Your task to perform on an android device: See recent photos Image 0: 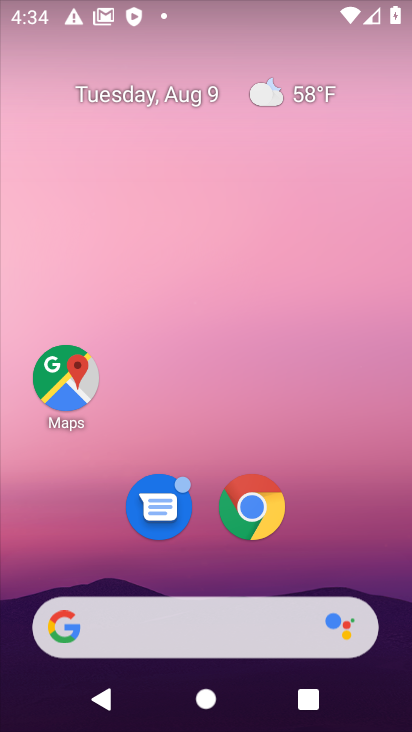
Step 0: drag from (327, 536) to (318, 55)
Your task to perform on an android device: See recent photos Image 1: 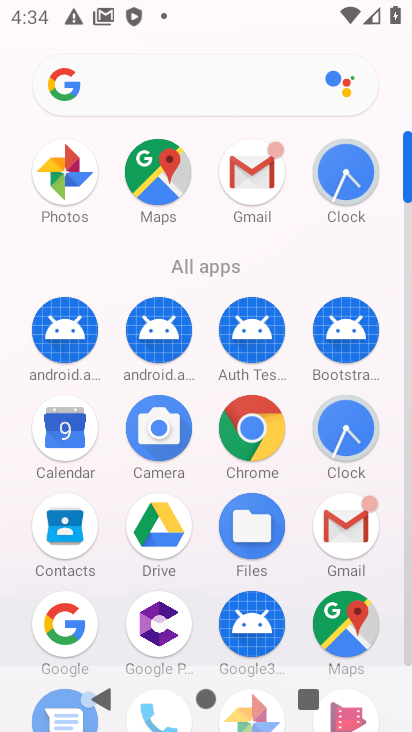
Step 1: click (72, 175)
Your task to perform on an android device: See recent photos Image 2: 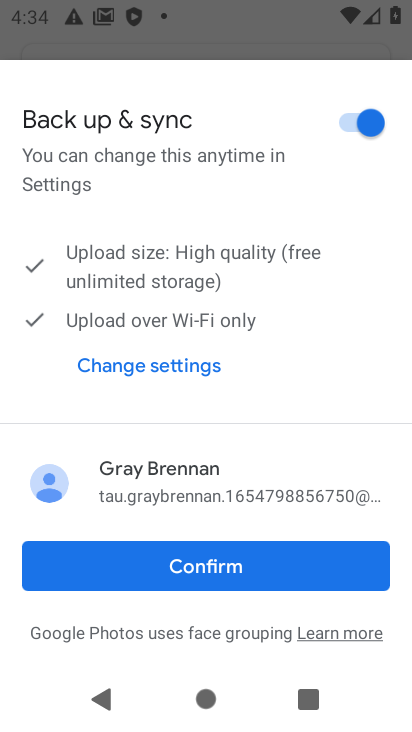
Step 2: click (196, 560)
Your task to perform on an android device: See recent photos Image 3: 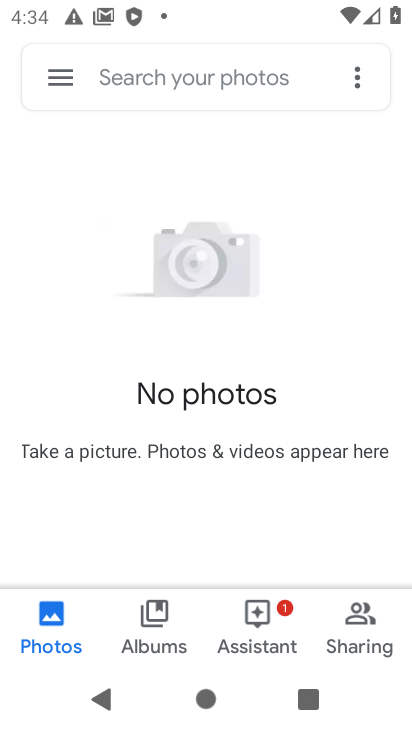
Step 3: task complete